Your task to perform on an android device: What's a good restaurant in New York? Image 0: 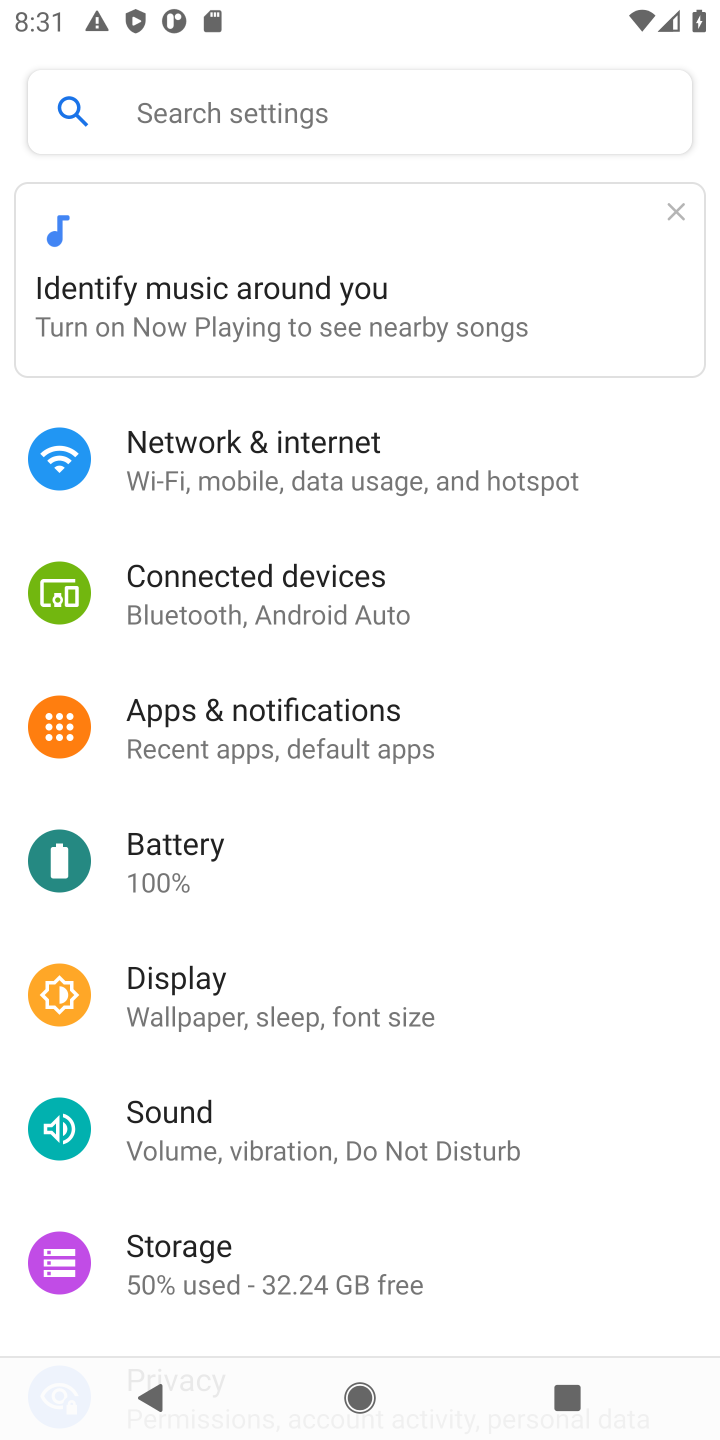
Step 0: press home button
Your task to perform on an android device: What's a good restaurant in New York? Image 1: 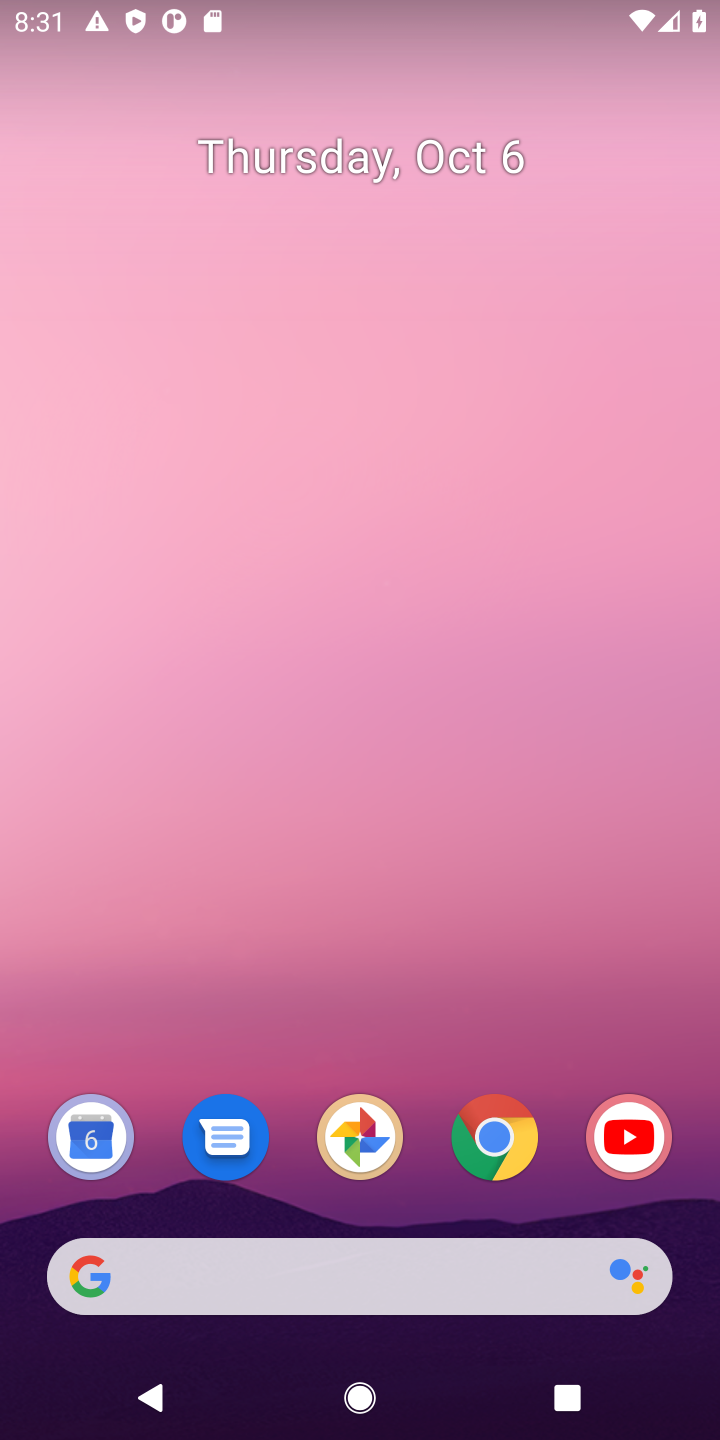
Step 1: click (493, 1138)
Your task to perform on an android device: What's a good restaurant in New York? Image 2: 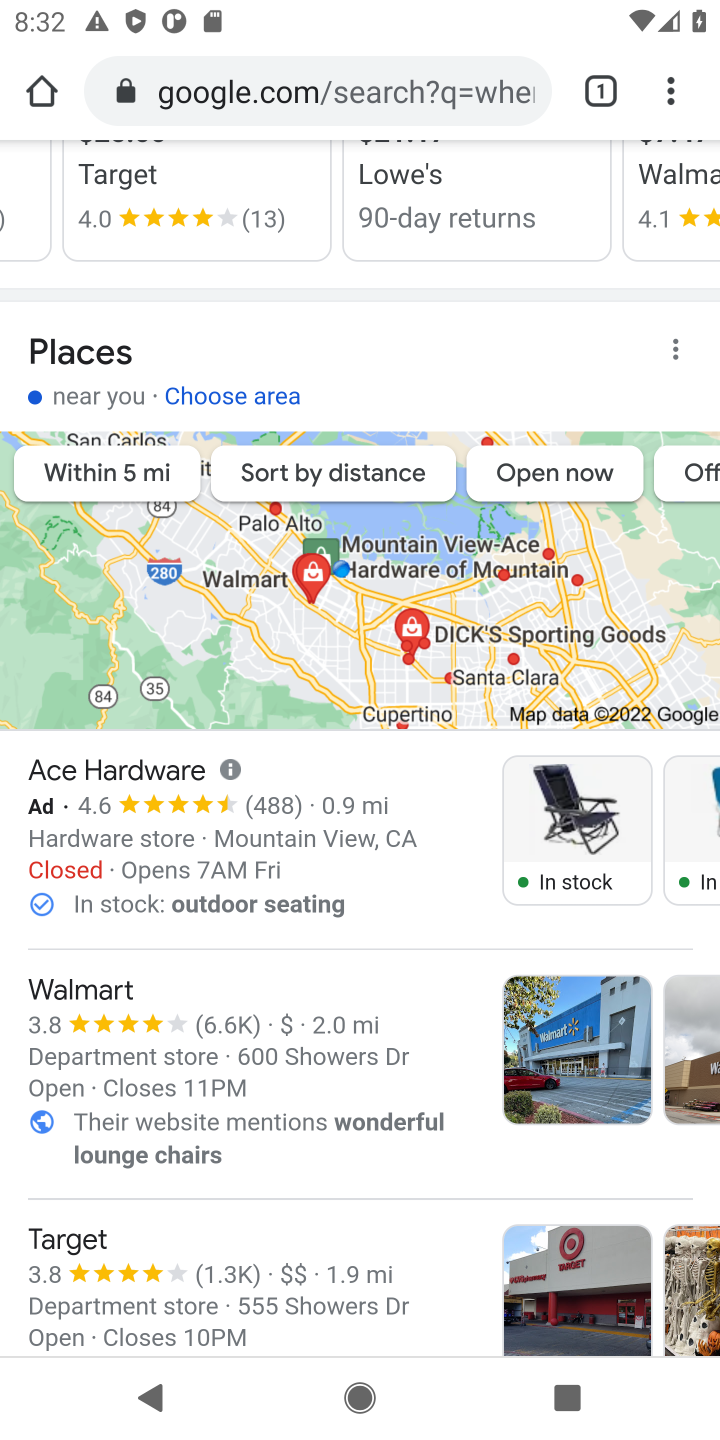
Step 2: drag from (436, 364) to (603, 1346)
Your task to perform on an android device: What's a good restaurant in New York? Image 3: 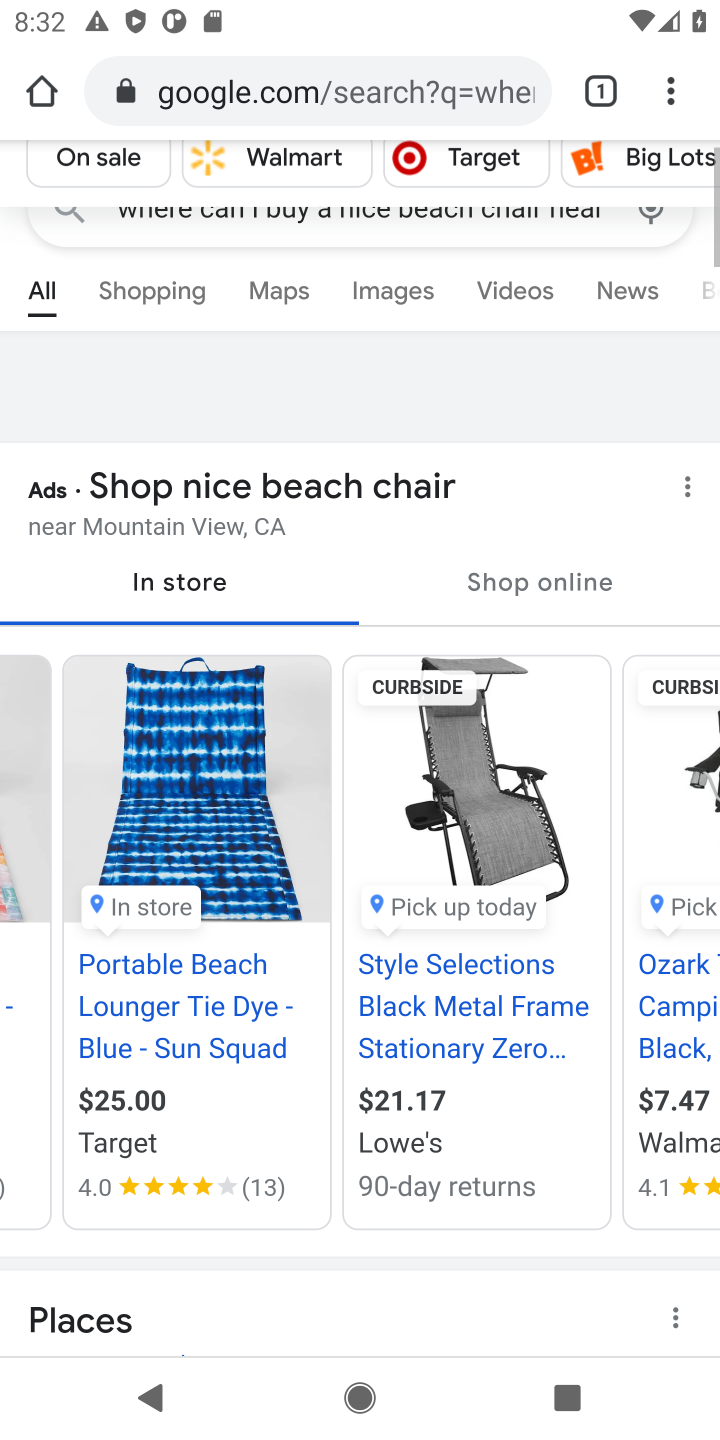
Step 3: click (417, 101)
Your task to perform on an android device: What's a good restaurant in New York? Image 4: 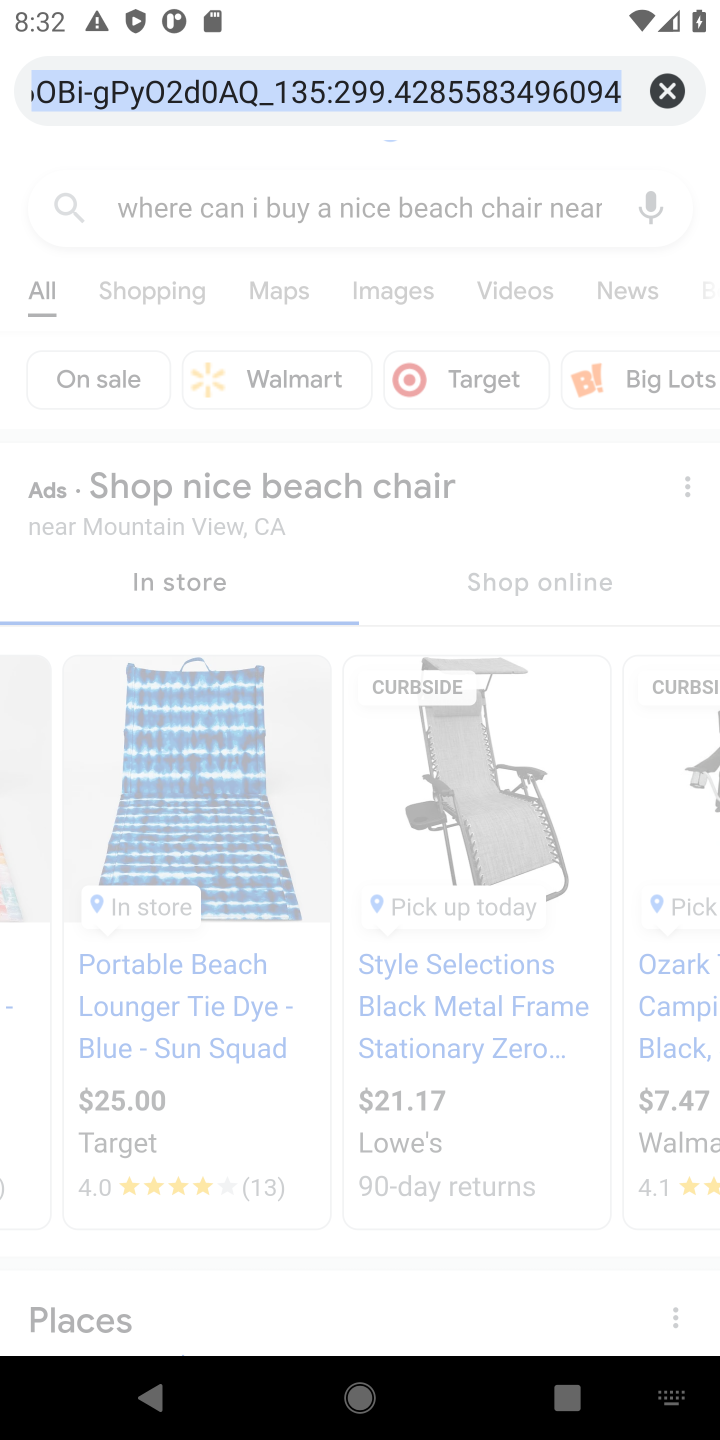
Step 4: click (671, 95)
Your task to perform on an android device: What's a good restaurant in New York? Image 5: 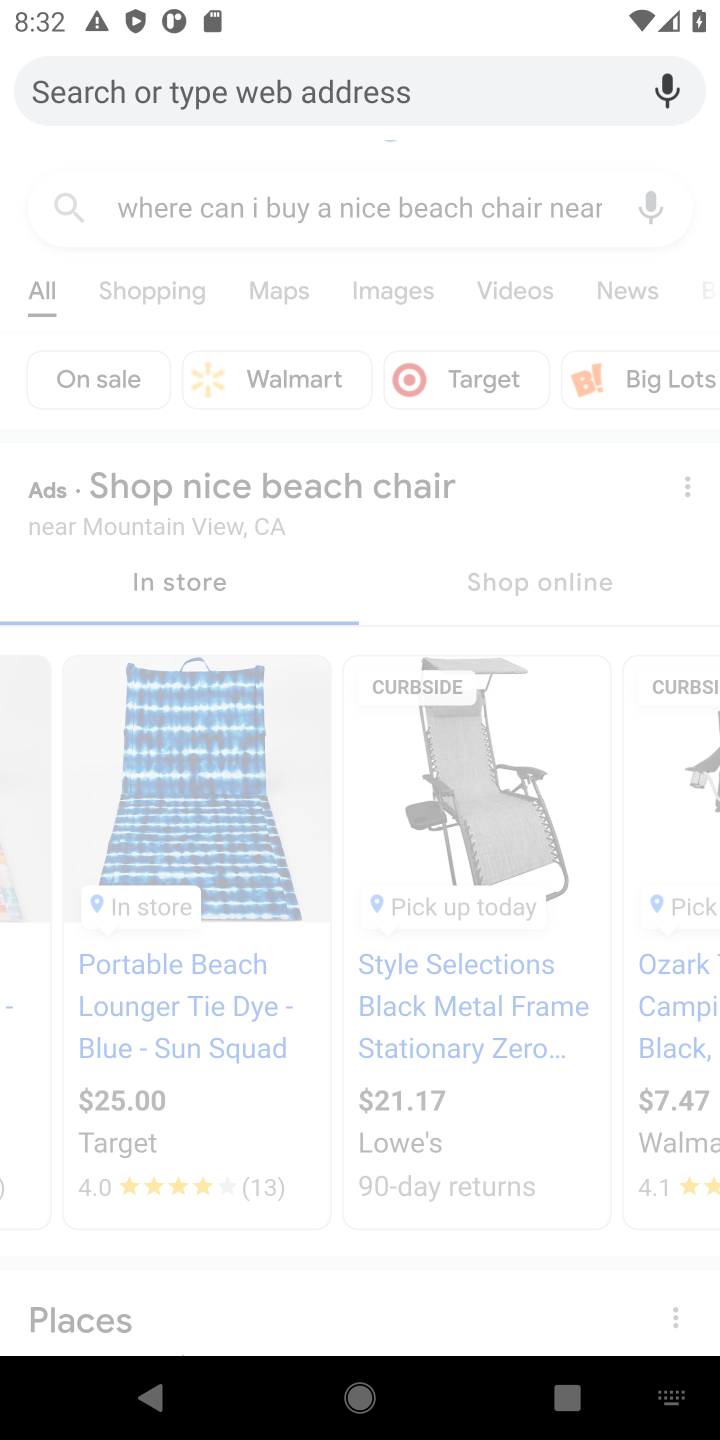
Step 5: click (377, 114)
Your task to perform on an android device: What's a good restaurant in New York? Image 6: 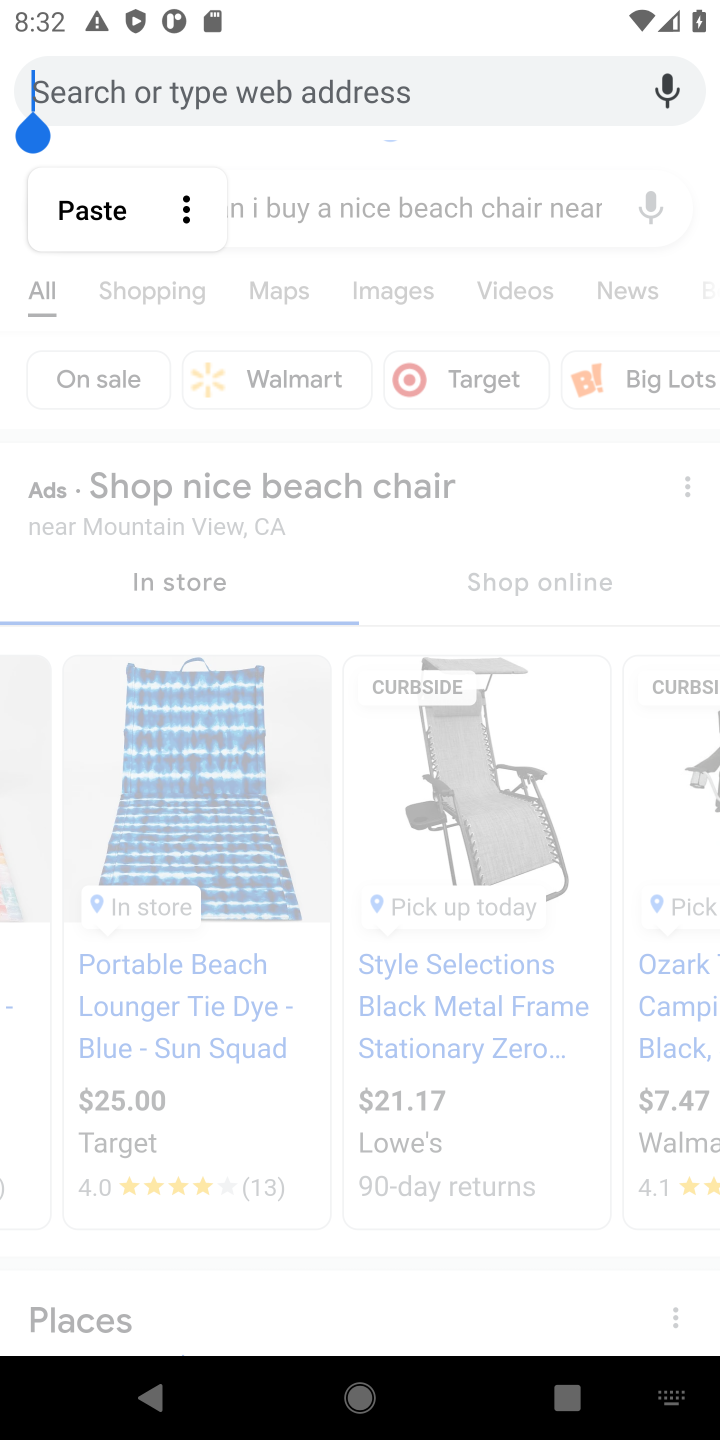
Step 6: type "a good restaurant in New York"
Your task to perform on an android device: What's a good restaurant in New York? Image 7: 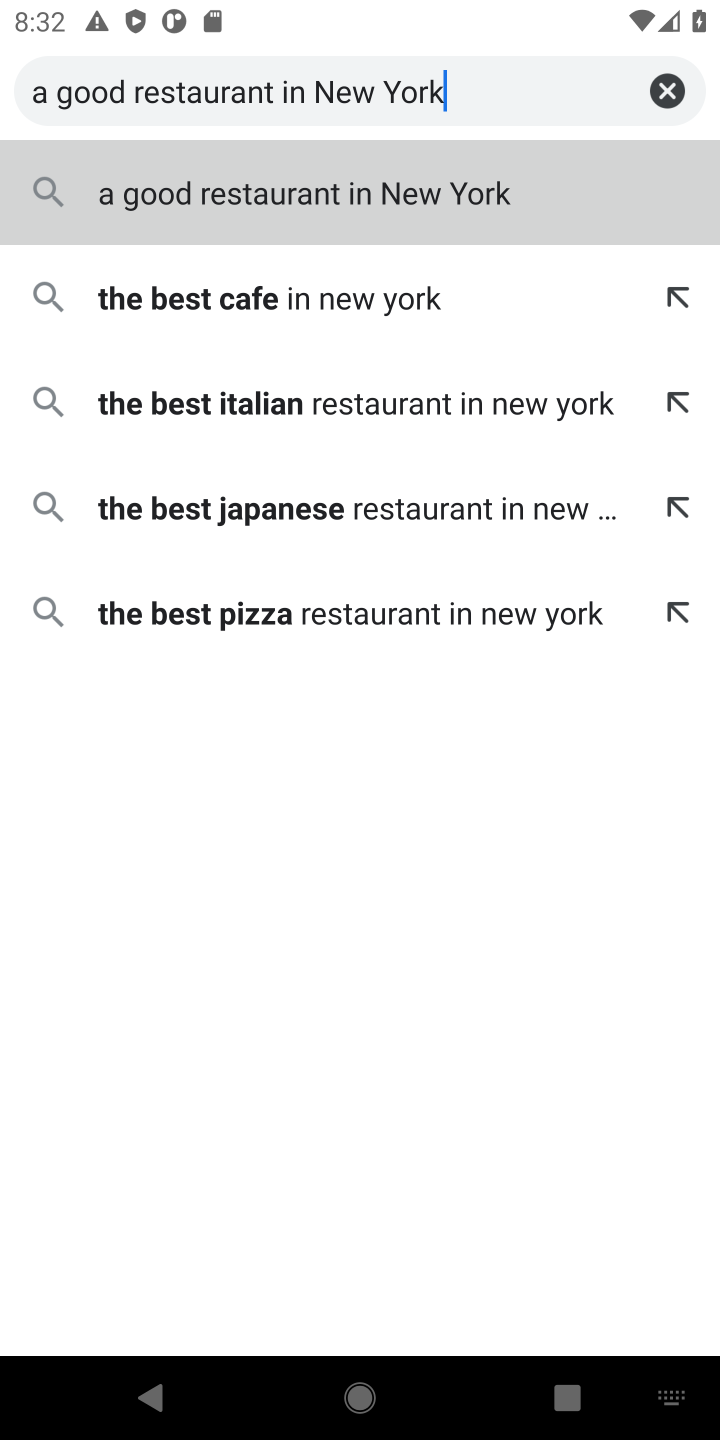
Step 7: click (325, 206)
Your task to perform on an android device: What's a good restaurant in New York? Image 8: 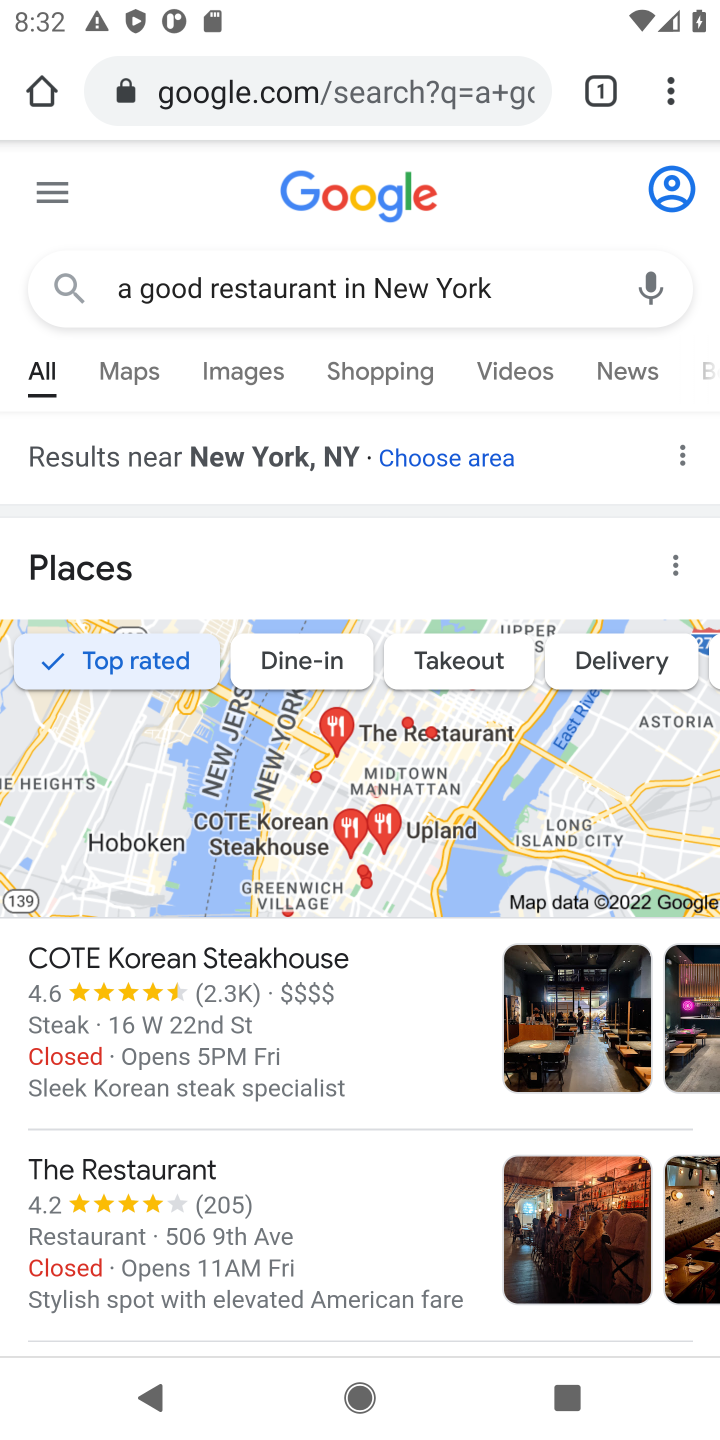
Step 8: drag from (338, 820) to (454, 291)
Your task to perform on an android device: What's a good restaurant in New York? Image 9: 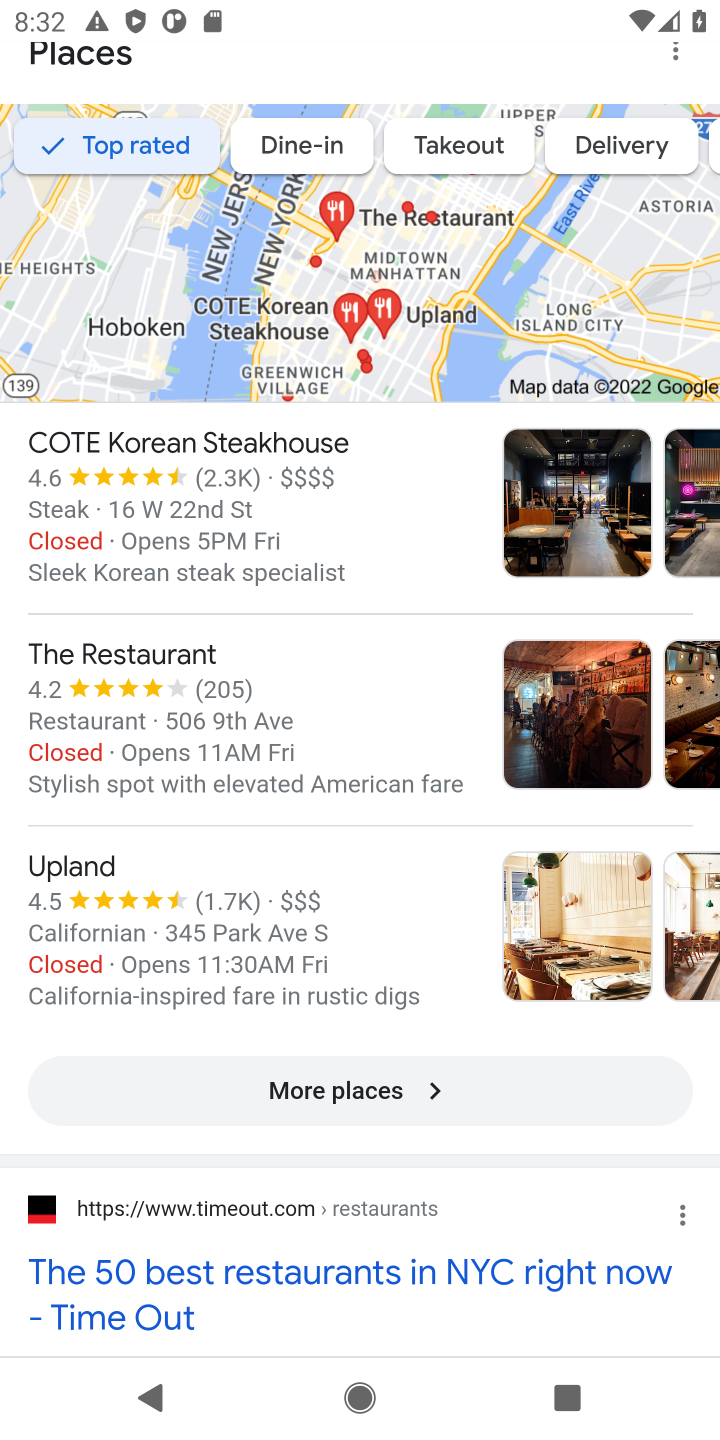
Step 9: click (225, 441)
Your task to perform on an android device: What's a good restaurant in New York? Image 10: 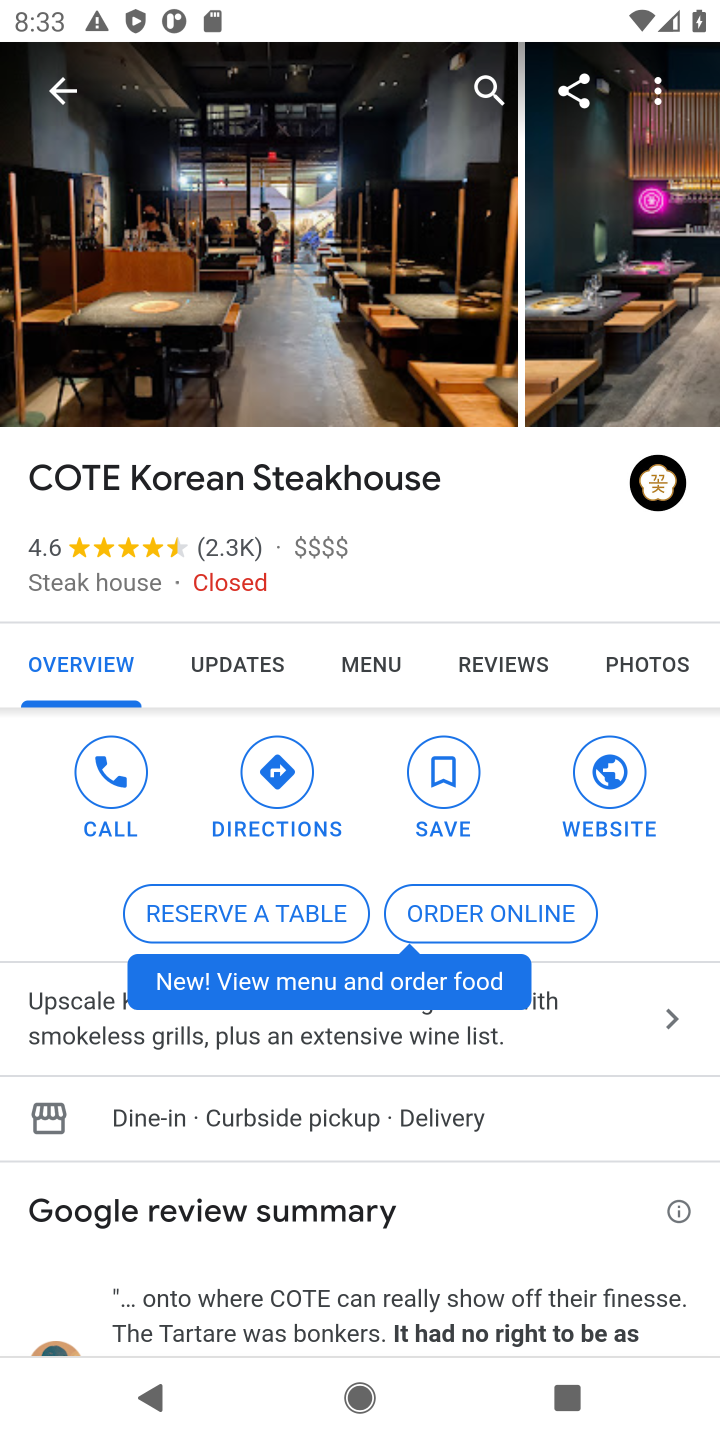
Step 10: task complete